Your task to perform on an android device: Go to Google Image 0: 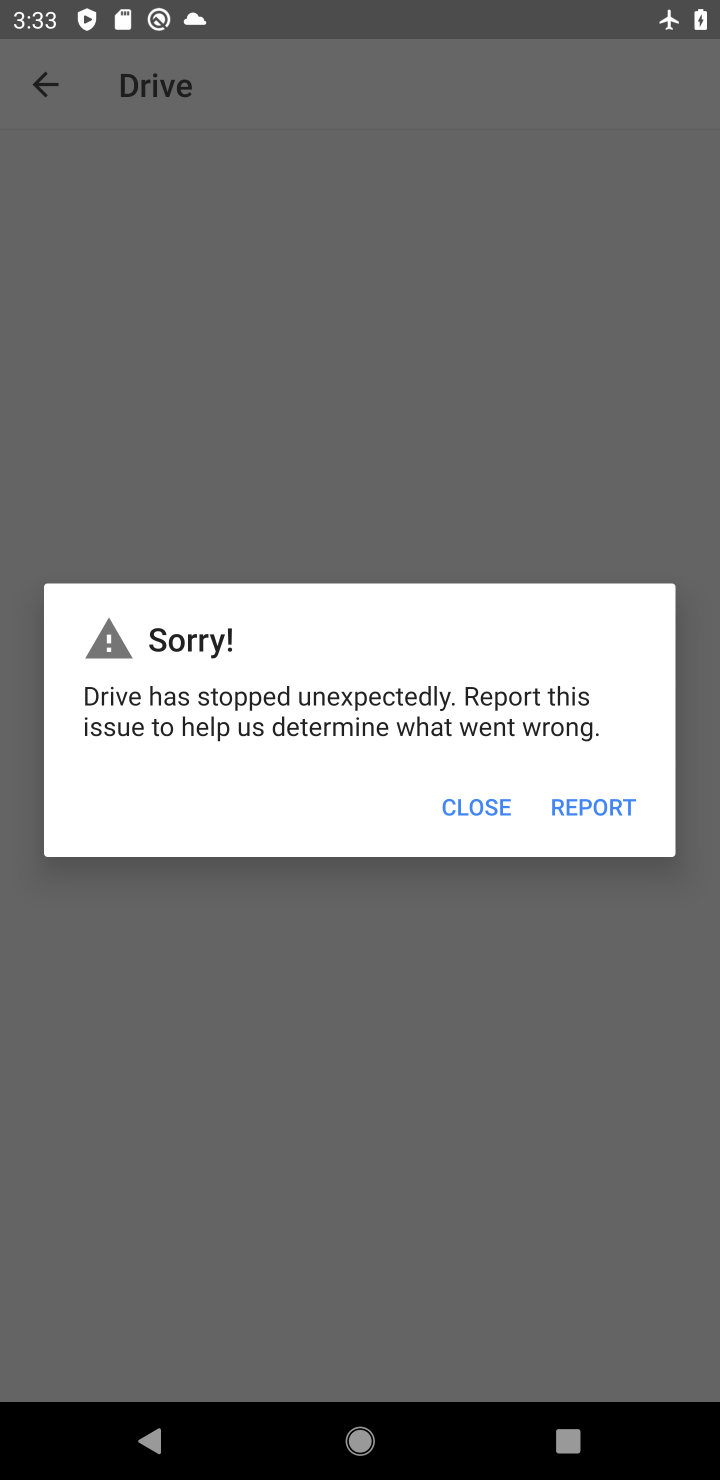
Step 0: press back button
Your task to perform on an android device: Go to Google Image 1: 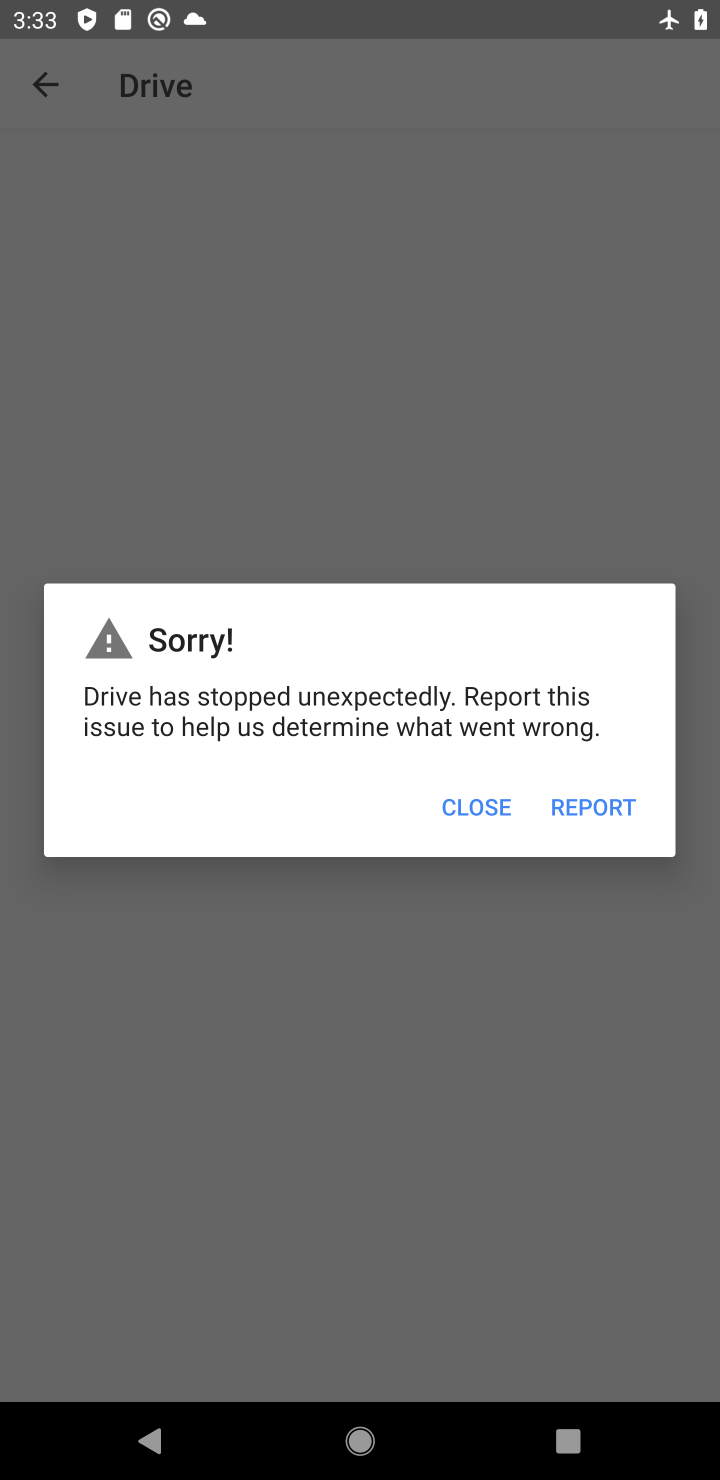
Step 1: press home button
Your task to perform on an android device: Go to Google Image 2: 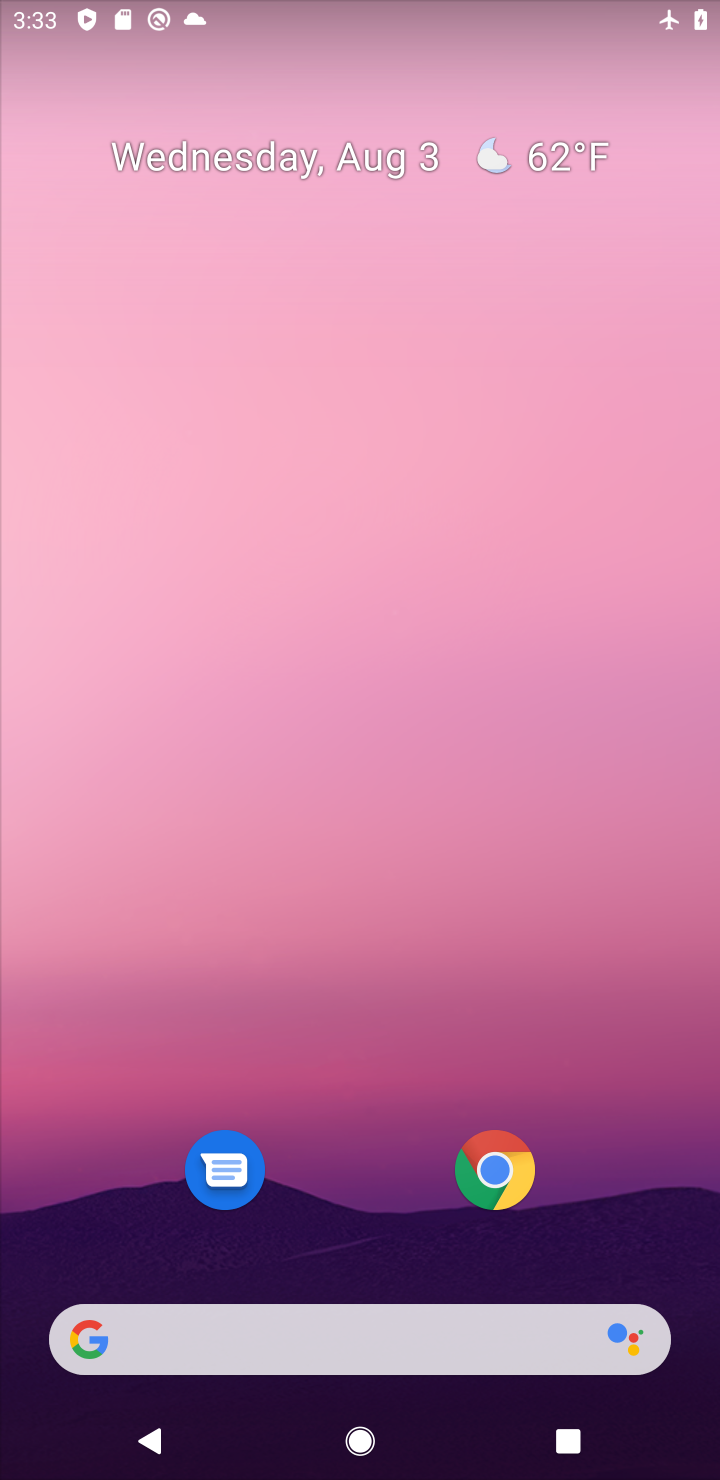
Step 2: drag from (329, 1196) to (323, 177)
Your task to perform on an android device: Go to Google Image 3: 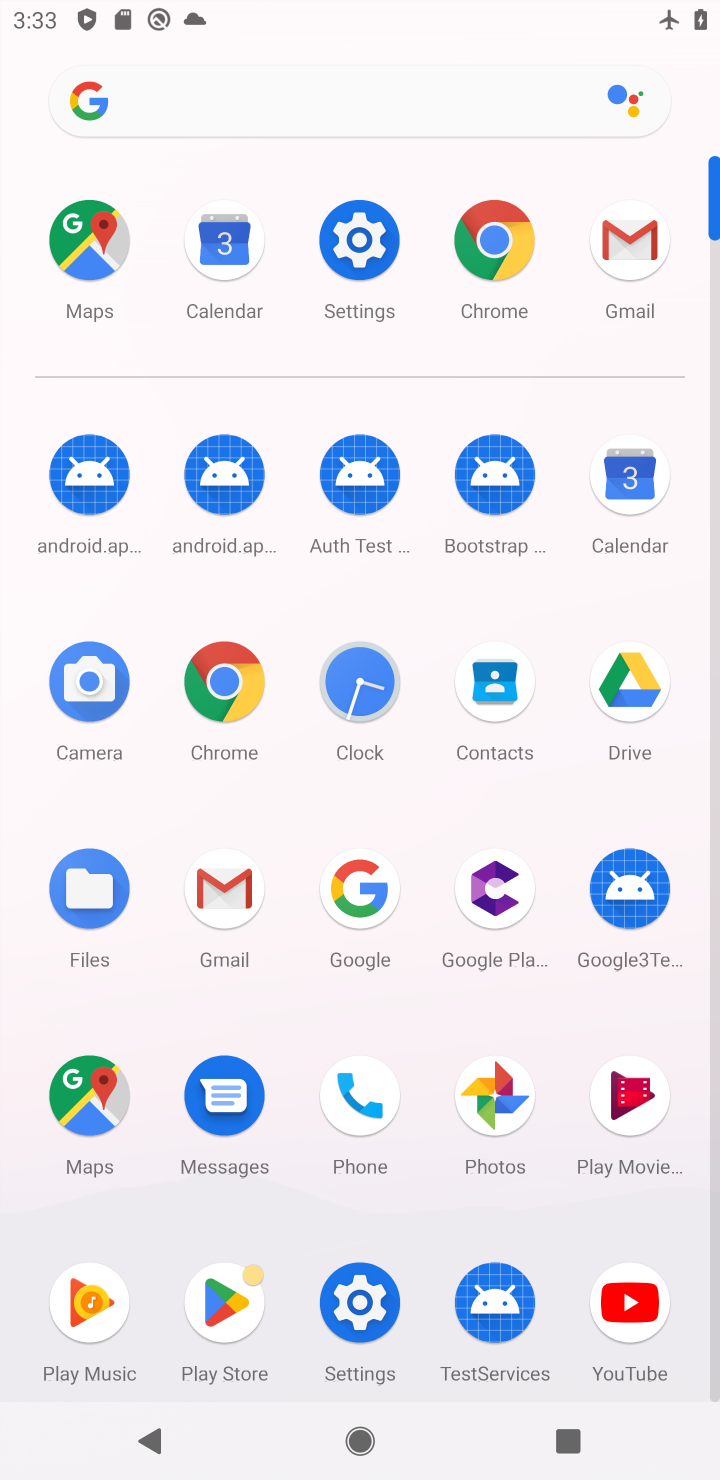
Step 3: click (346, 873)
Your task to perform on an android device: Go to Google Image 4: 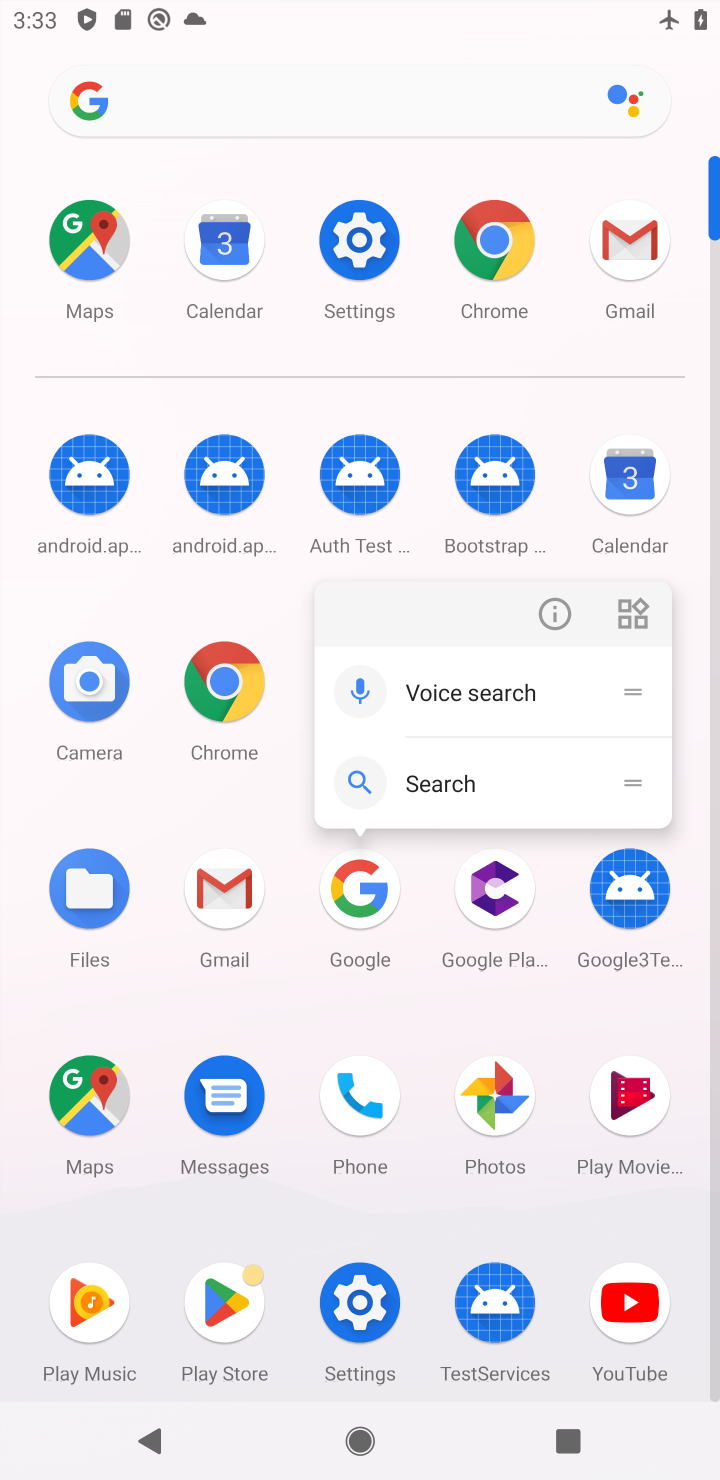
Step 4: click (346, 909)
Your task to perform on an android device: Go to Google Image 5: 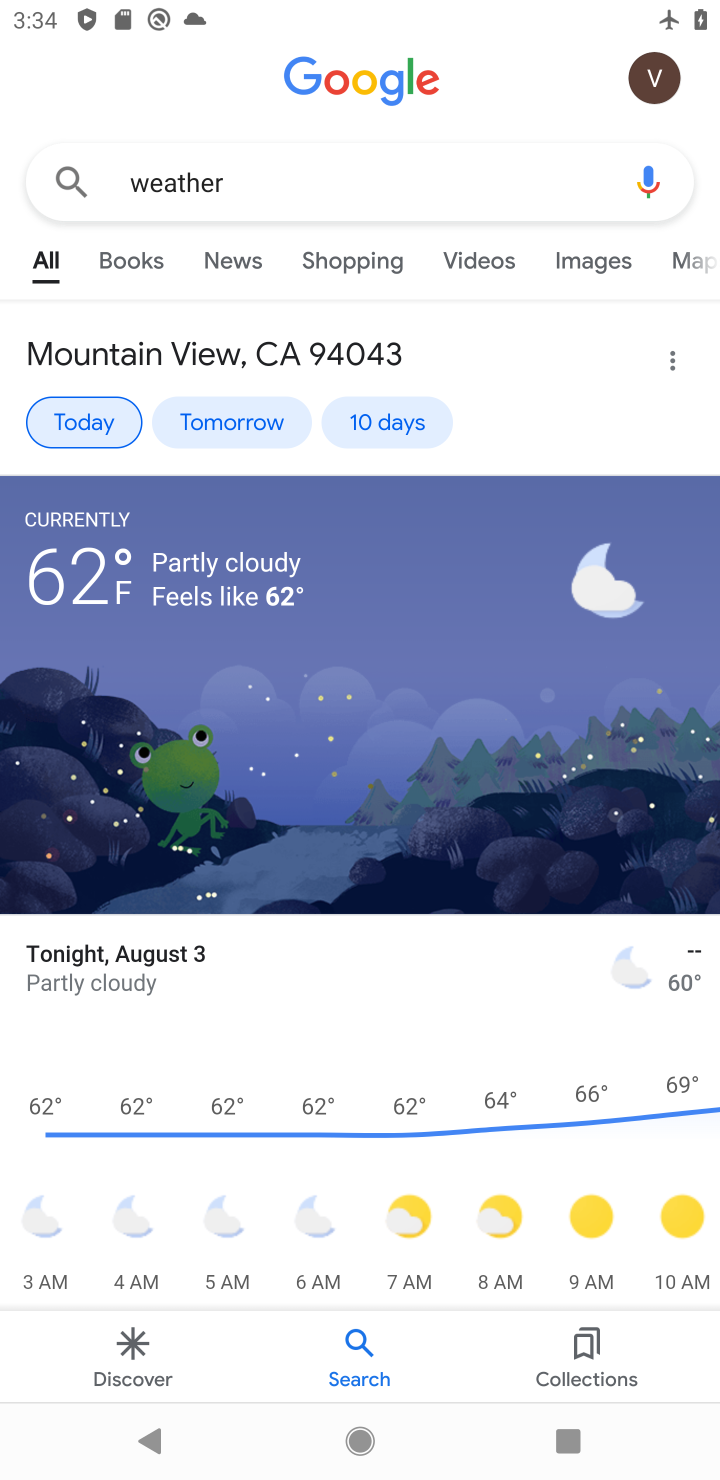
Step 5: task complete